Your task to perform on an android device: Go to ESPN.com Image 0: 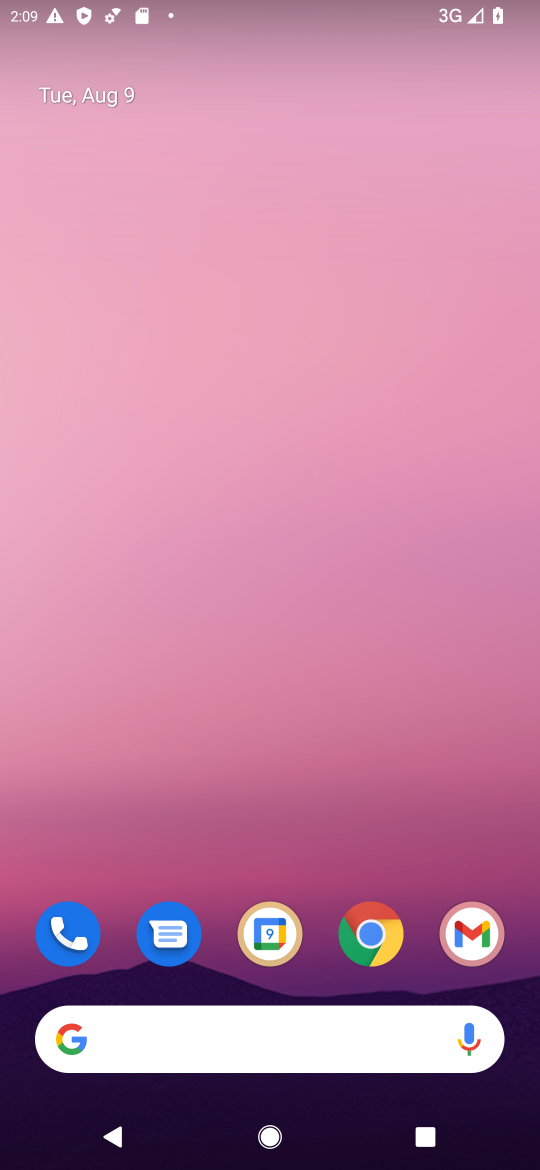
Step 0: click (372, 938)
Your task to perform on an android device: Go to ESPN.com Image 1: 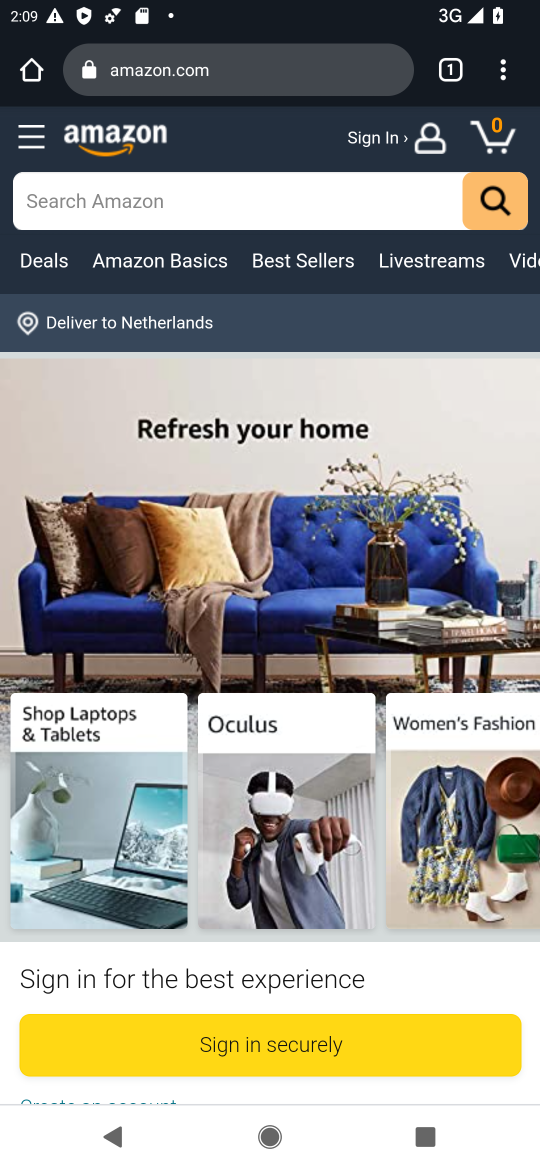
Step 1: click (274, 80)
Your task to perform on an android device: Go to ESPN.com Image 2: 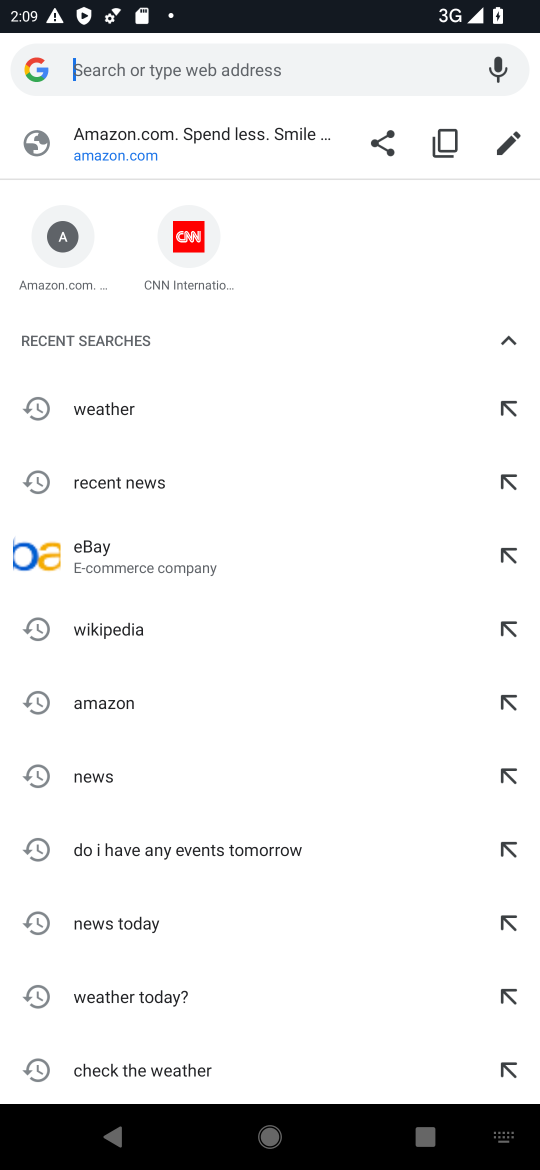
Step 2: type "espn.com"
Your task to perform on an android device: Go to ESPN.com Image 3: 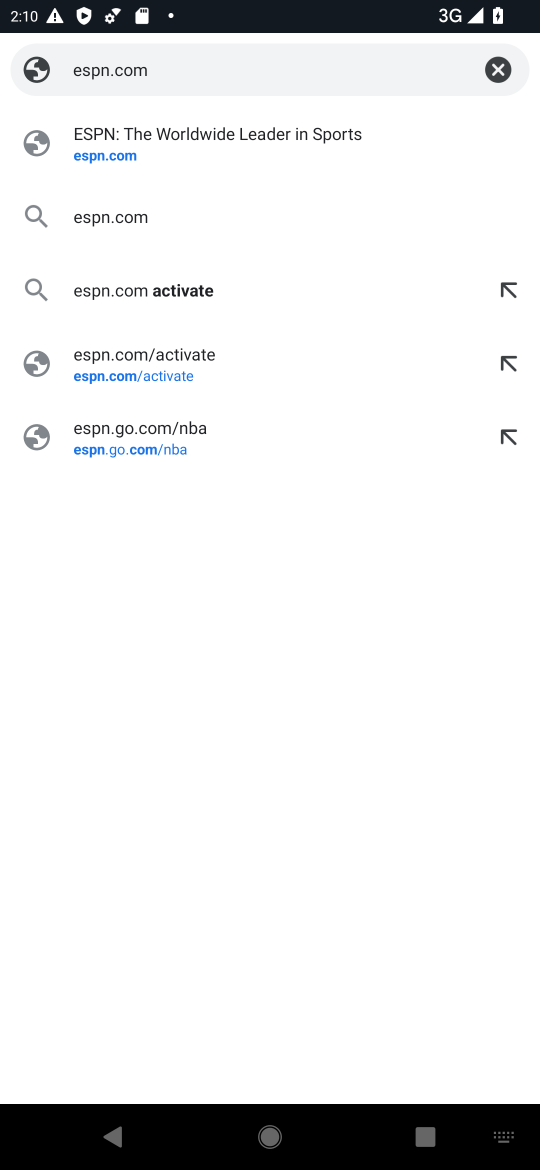
Step 3: click (218, 147)
Your task to perform on an android device: Go to ESPN.com Image 4: 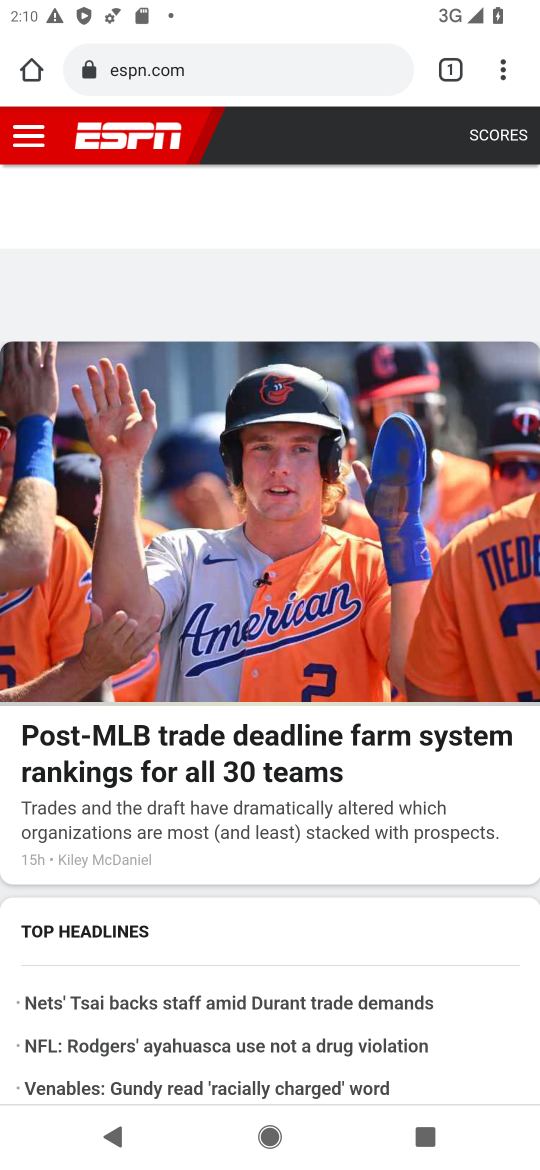
Step 4: task complete